Your task to perform on an android device: Open internet settings Image 0: 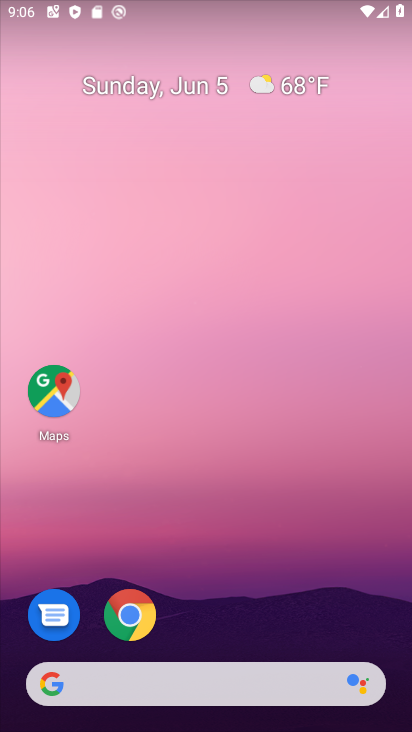
Step 0: drag from (169, 712) to (162, 106)
Your task to perform on an android device: Open internet settings Image 1: 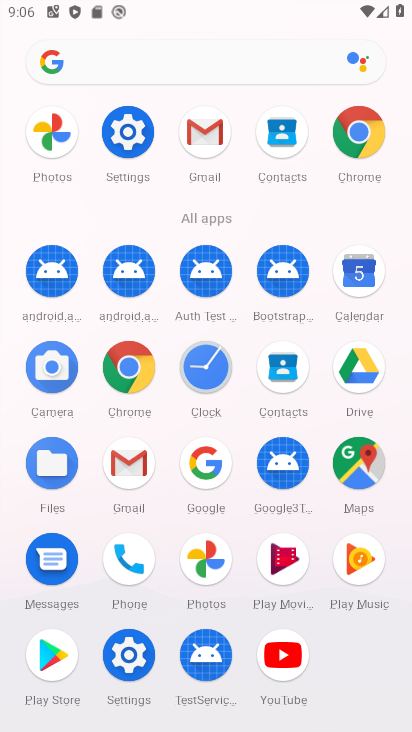
Step 1: click (131, 142)
Your task to perform on an android device: Open internet settings Image 2: 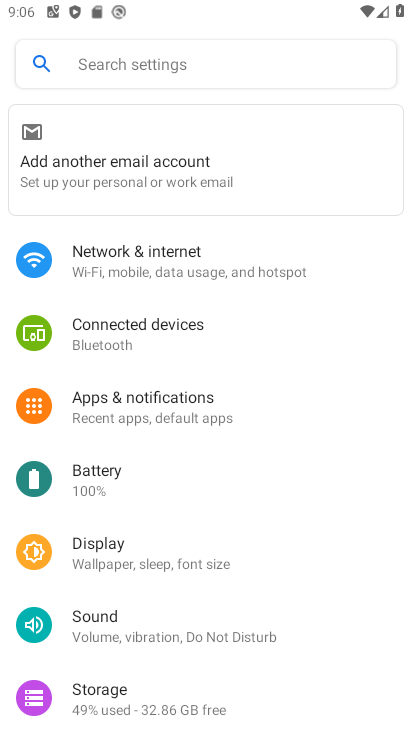
Step 2: click (171, 257)
Your task to perform on an android device: Open internet settings Image 3: 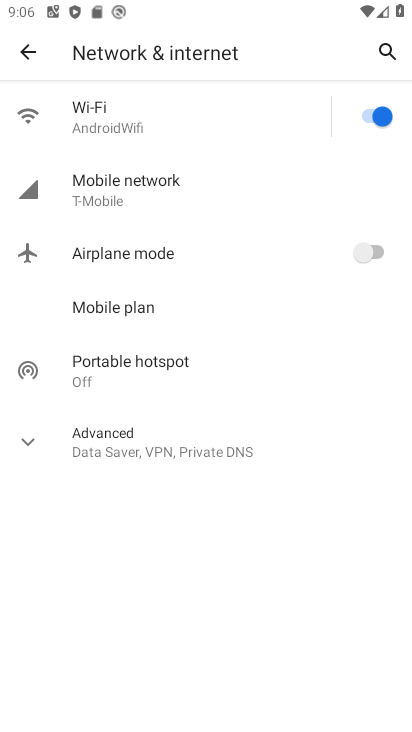
Step 3: click (171, 203)
Your task to perform on an android device: Open internet settings Image 4: 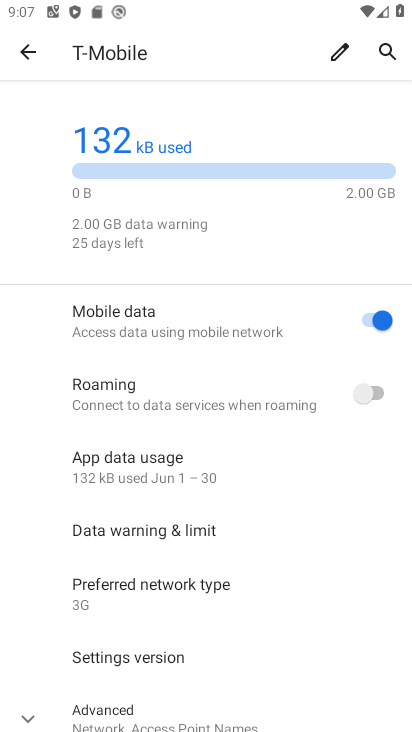
Step 4: task complete